Your task to perform on an android device: toggle sleep mode Image 0: 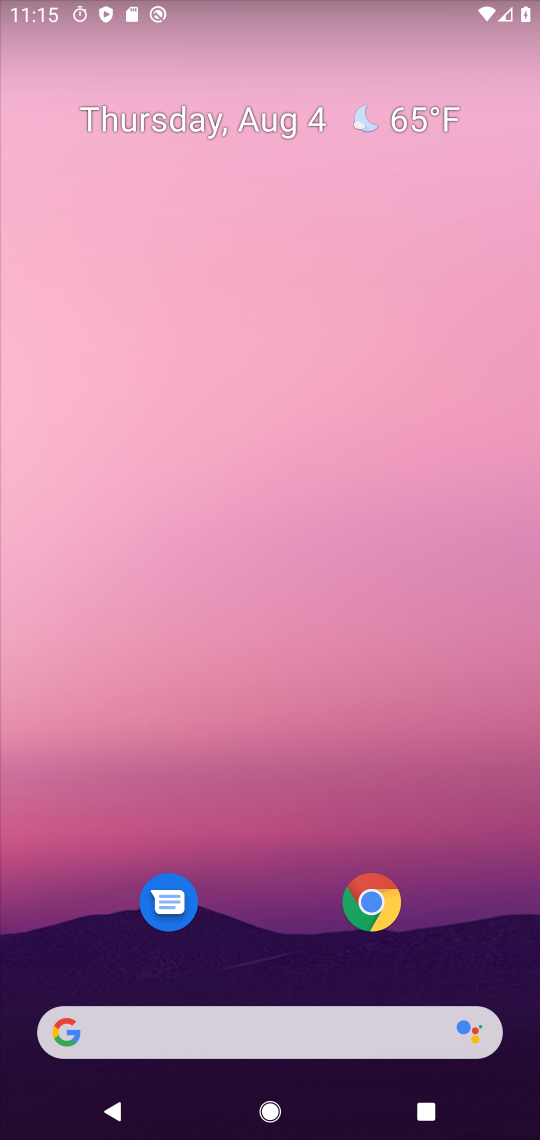
Step 0: press home button
Your task to perform on an android device: toggle sleep mode Image 1: 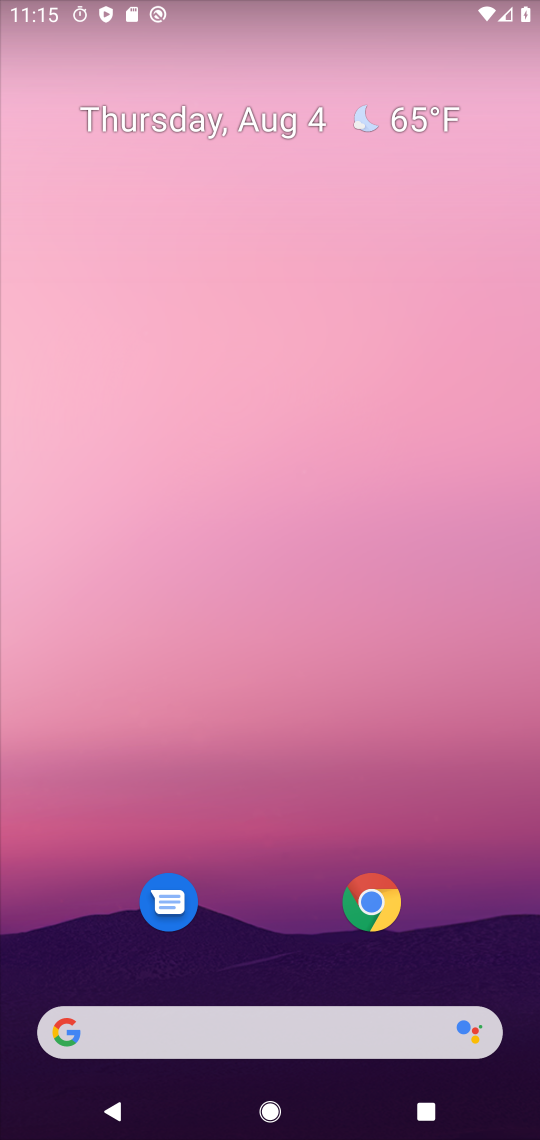
Step 1: drag from (333, 994) to (293, 414)
Your task to perform on an android device: toggle sleep mode Image 2: 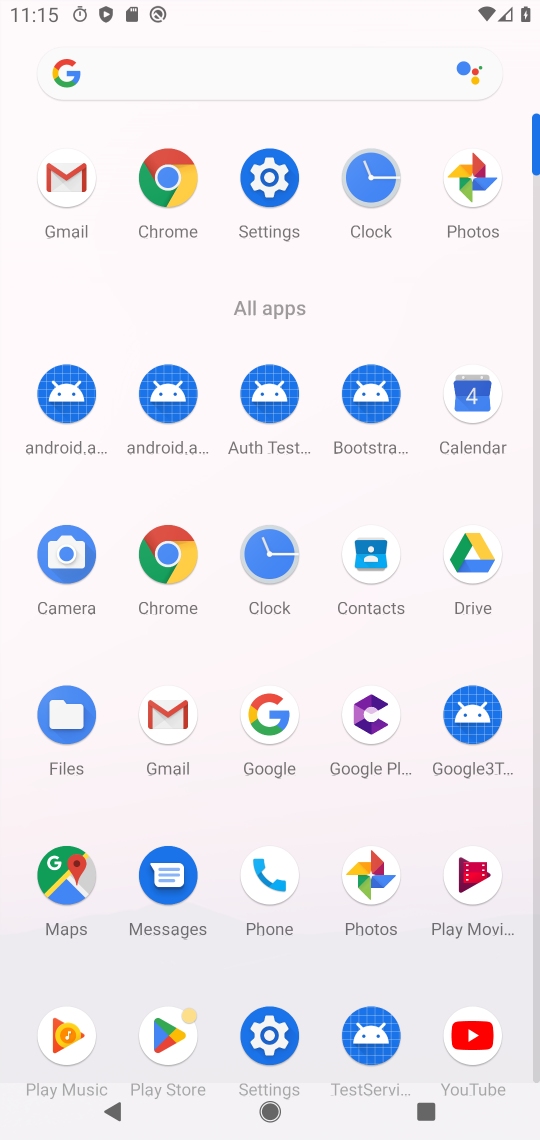
Step 2: press home button
Your task to perform on an android device: toggle sleep mode Image 3: 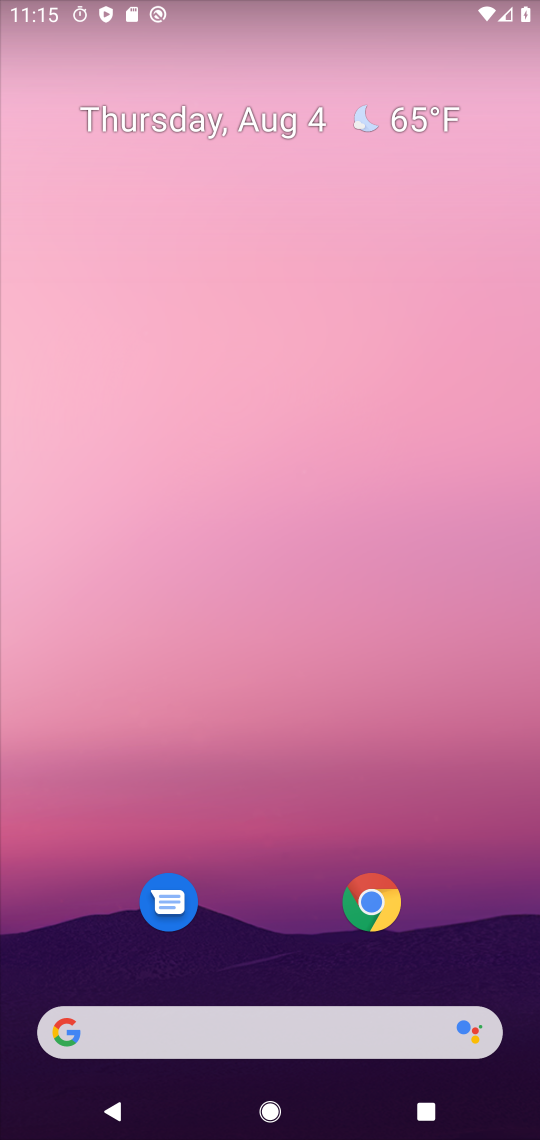
Step 3: drag from (285, 944) to (253, 368)
Your task to perform on an android device: toggle sleep mode Image 4: 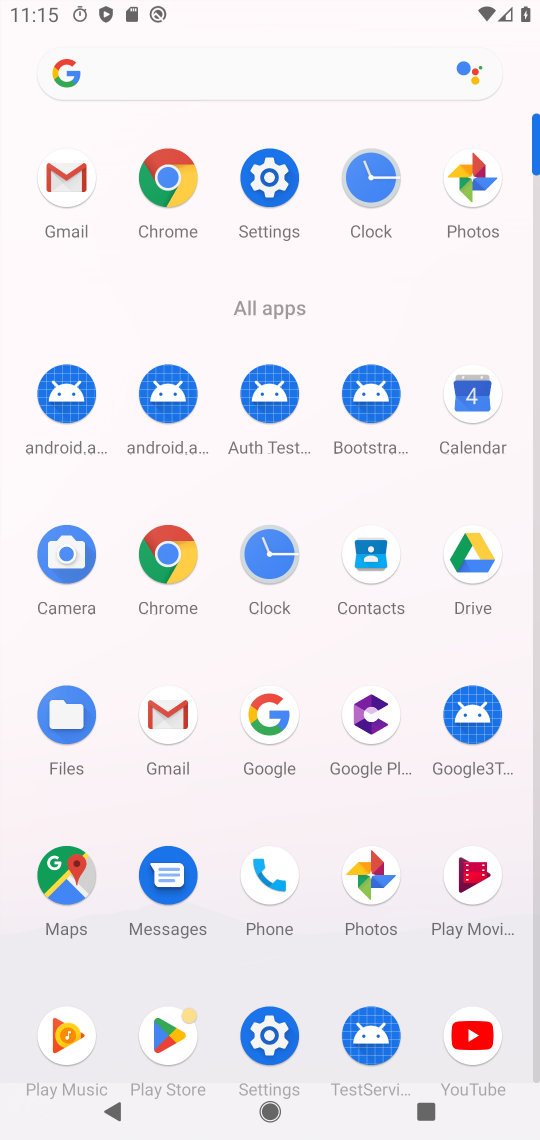
Step 4: click (268, 191)
Your task to perform on an android device: toggle sleep mode Image 5: 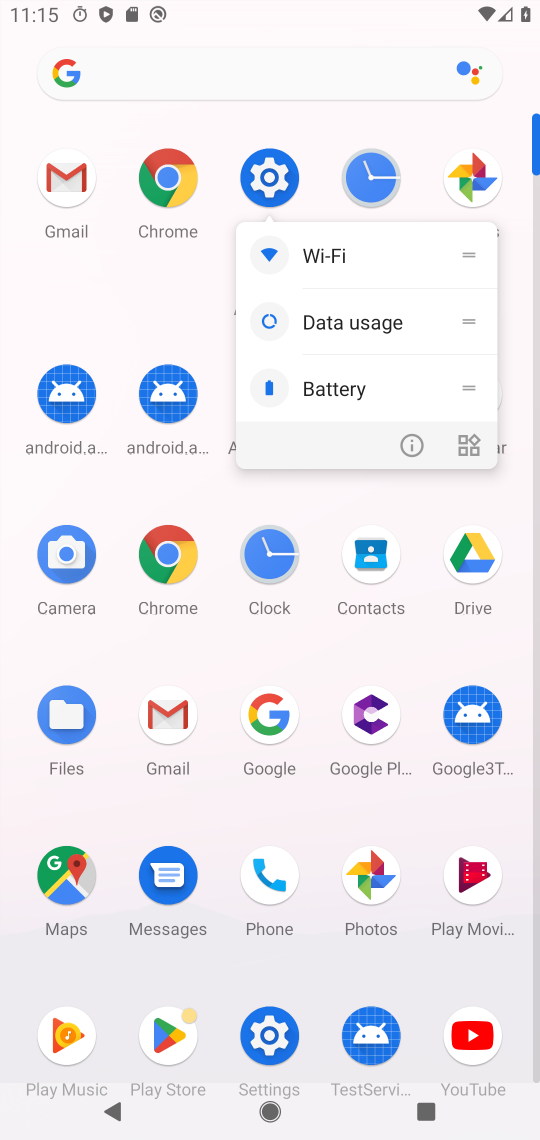
Step 5: click (263, 164)
Your task to perform on an android device: toggle sleep mode Image 6: 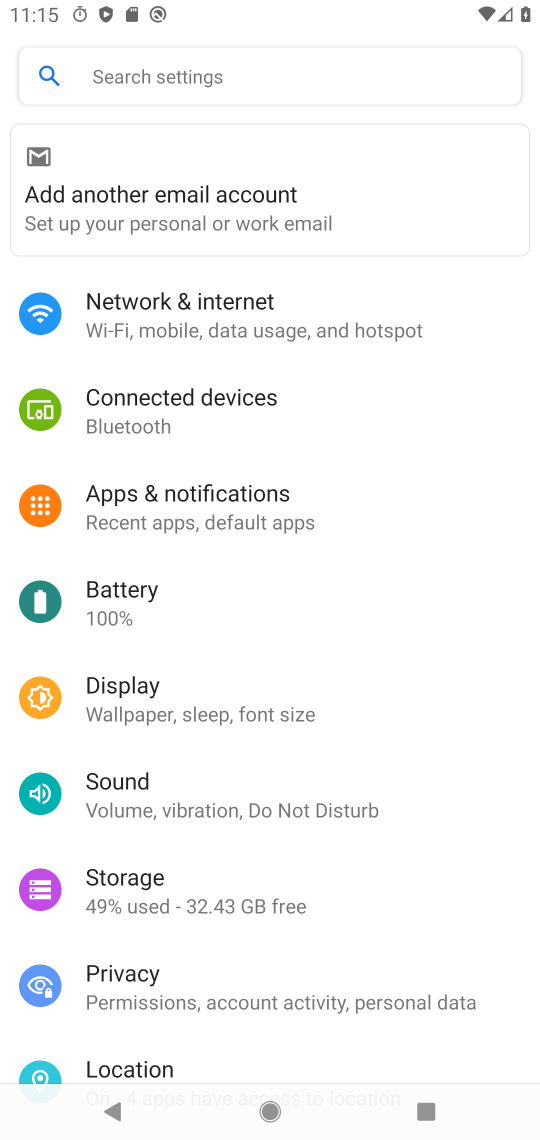
Step 6: click (233, 77)
Your task to perform on an android device: toggle sleep mode Image 7: 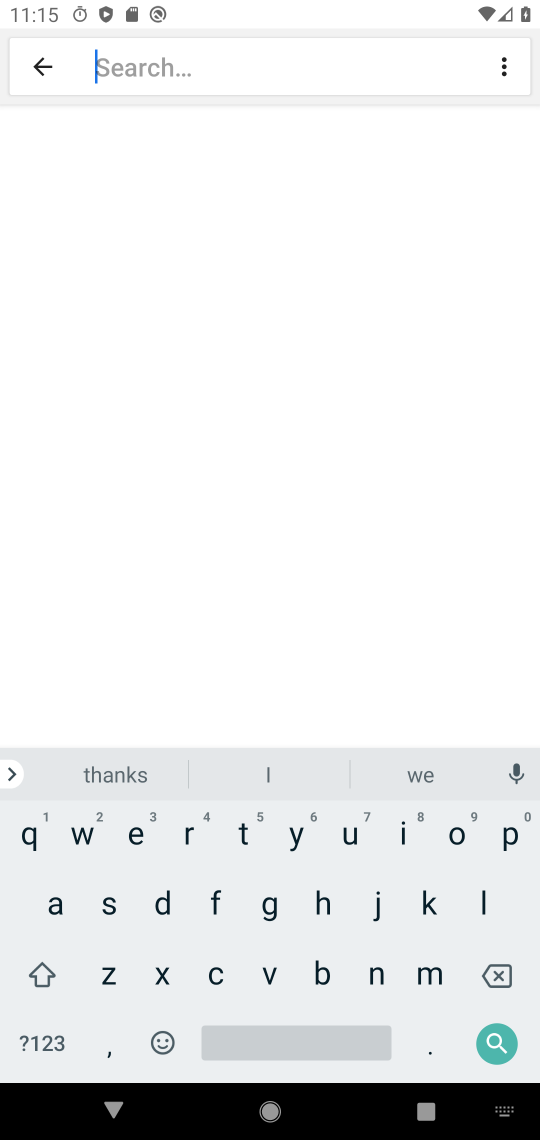
Step 7: click (103, 912)
Your task to perform on an android device: toggle sleep mode Image 8: 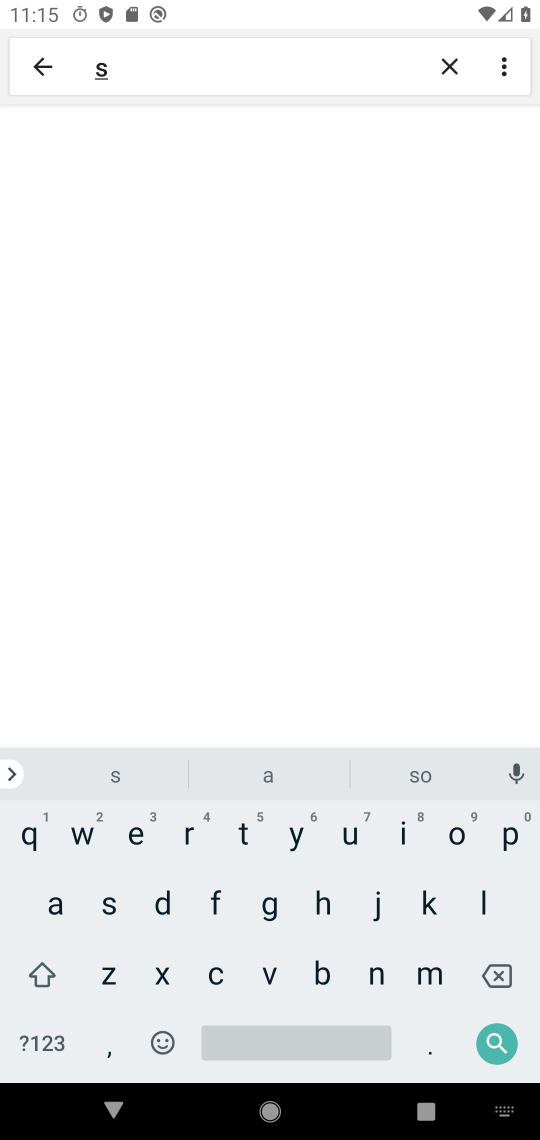
Step 8: click (495, 909)
Your task to perform on an android device: toggle sleep mode Image 9: 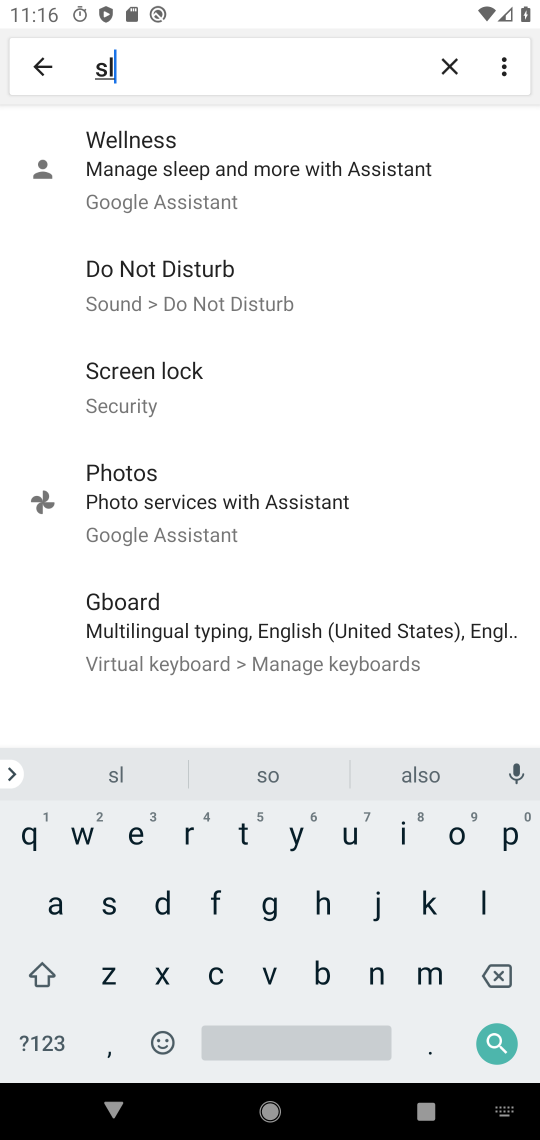
Step 9: click (168, 274)
Your task to perform on an android device: toggle sleep mode Image 10: 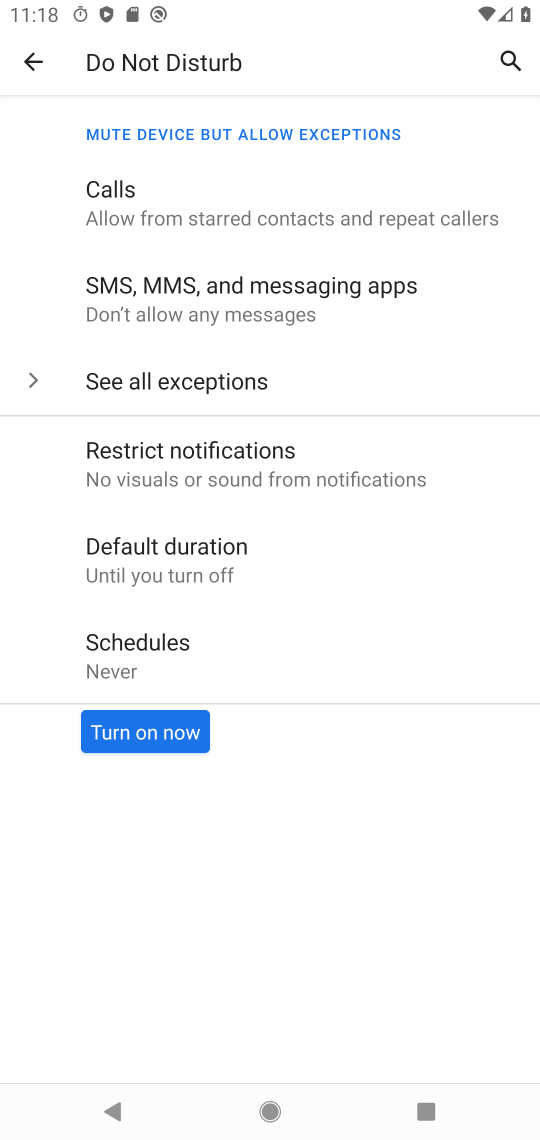
Step 10: task complete